Your task to perform on an android device: add a label to a message in the gmail app Image 0: 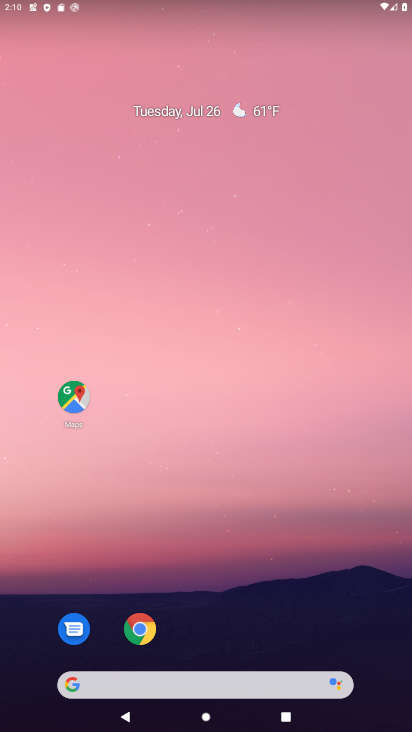
Step 0: drag from (214, 565) to (224, 98)
Your task to perform on an android device: add a label to a message in the gmail app Image 1: 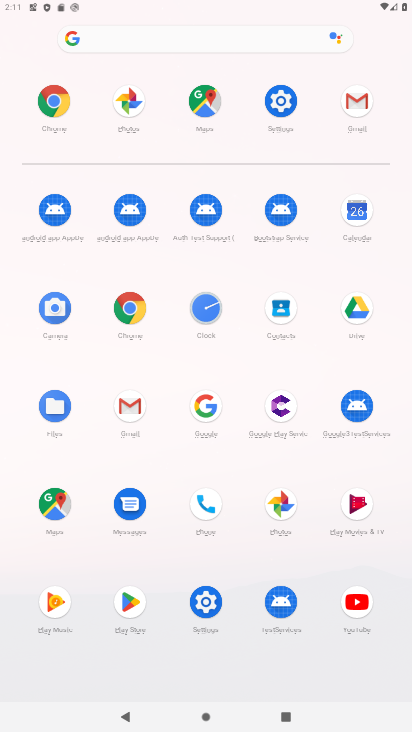
Step 1: click (350, 102)
Your task to perform on an android device: add a label to a message in the gmail app Image 2: 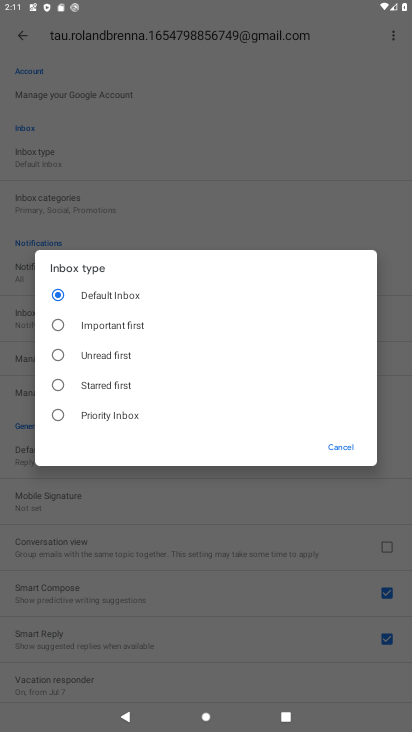
Step 2: click (337, 441)
Your task to perform on an android device: add a label to a message in the gmail app Image 3: 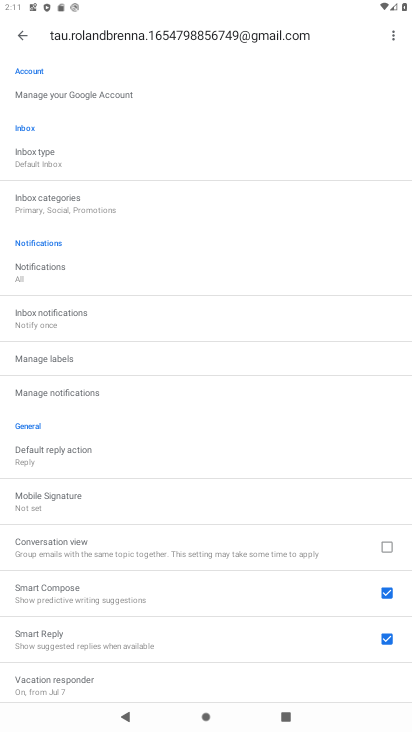
Step 3: click (18, 31)
Your task to perform on an android device: add a label to a message in the gmail app Image 4: 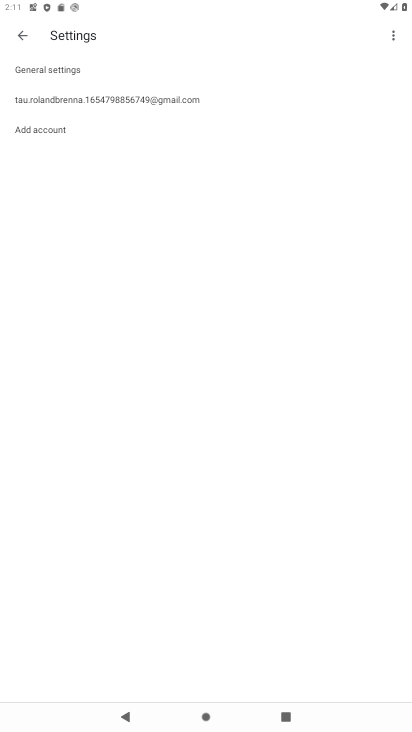
Step 4: click (21, 39)
Your task to perform on an android device: add a label to a message in the gmail app Image 5: 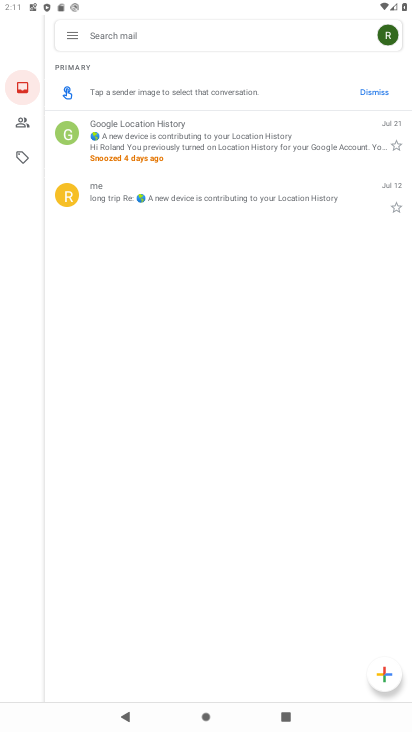
Step 5: click (215, 132)
Your task to perform on an android device: add a label to a message in the gmail app Image 6: 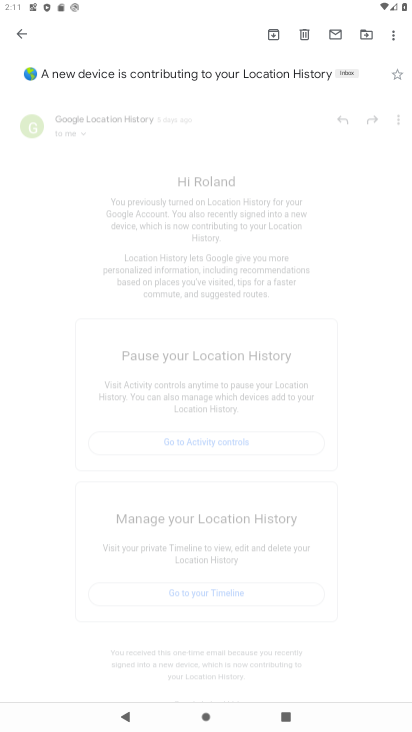
Step 6: click (395, 32)
Your task to perform on an android device: add a label to a message in the gmail app Image 7: 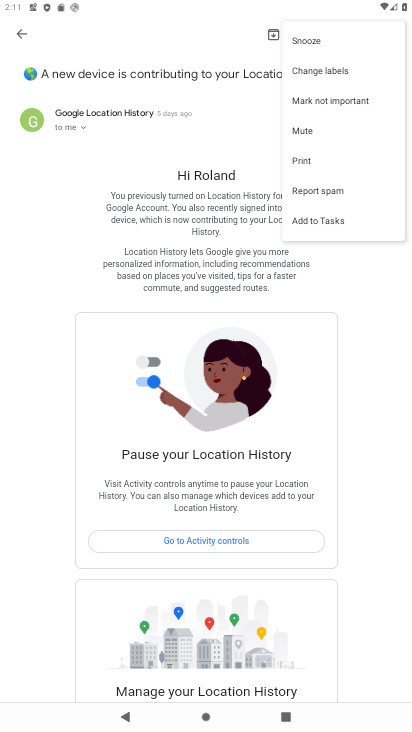
Step 7: click (317, 76)
Your task to perform on an android device: add a label to a message in the gmail app Image 8: 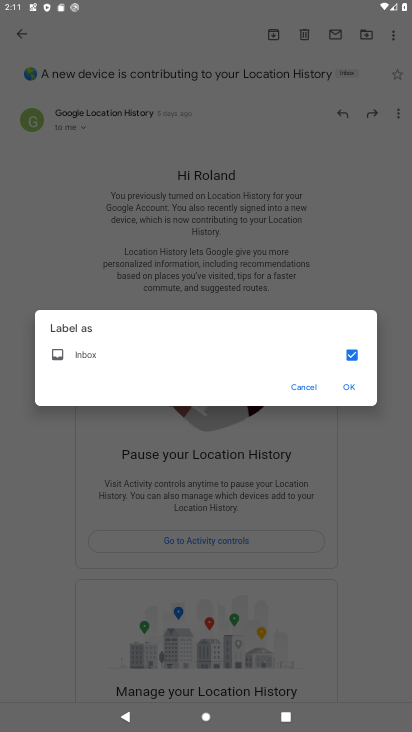
Step 8: click (342, 381)
Your task to perform on an android device: add a label to a message in the gmail app Image 9: 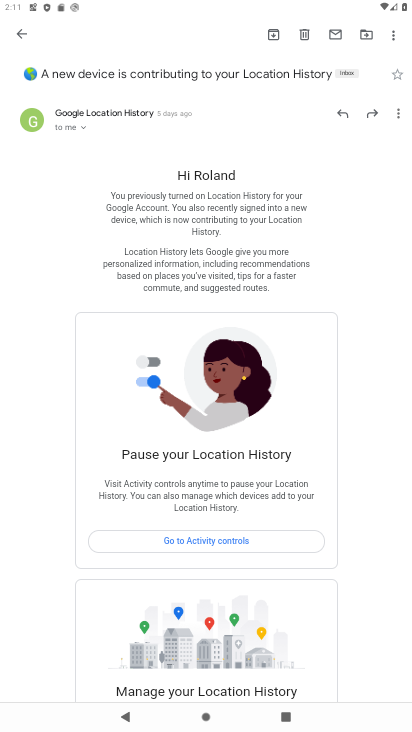
Step 9: task complete